Your task to perform on an android device: Open maps Image 0: 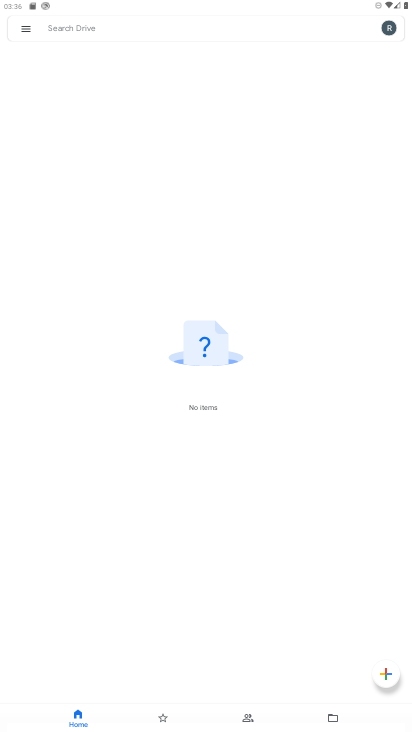
Step 0: press home button
Your task to perform on an android device: Open maps Image 1: 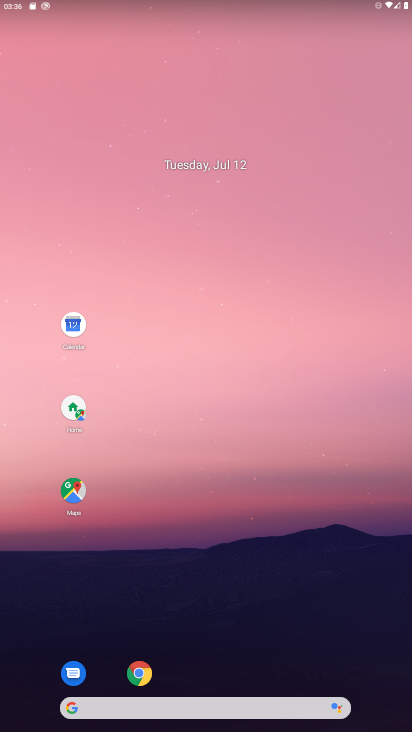
Step 1: click (70, 486)
Your task to perform on an android device: Open maps Image 2: 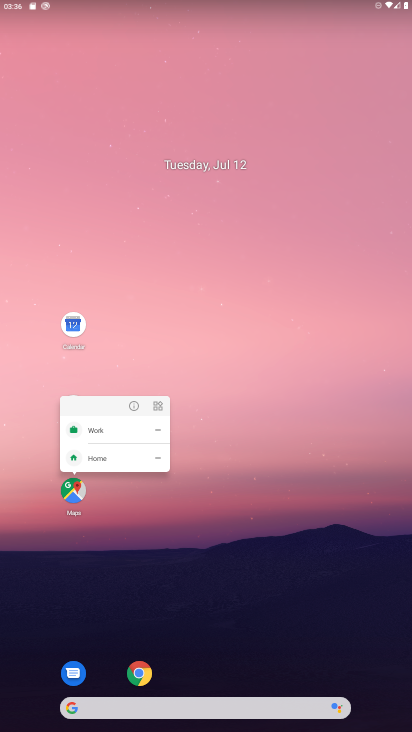
Step 2: click (77, 491)
Your task to perform on an android device: Open maps Image 3: 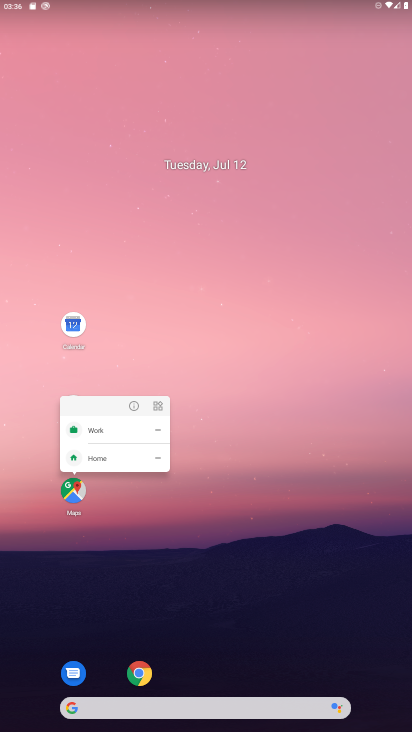
Step 3: click (76, 488)
Your task to perform on an android device: Open maps Image 4: 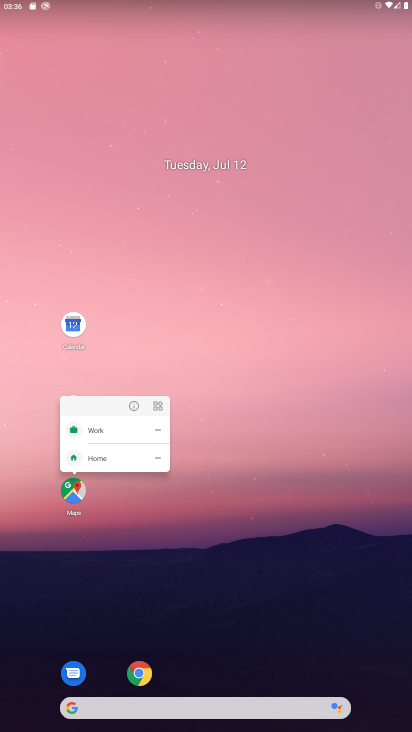
Step 4: drag from (213, 605) to (217, 166)
Your task to perform on an android device: Open maps Image 5: 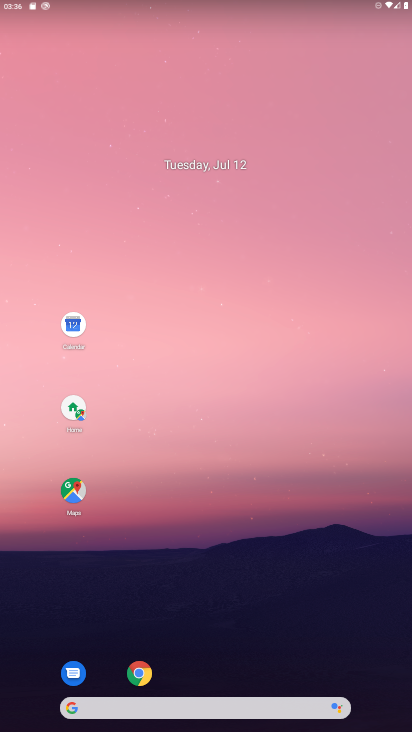
Step 5: drag from (172, 662) to (164, 149)
Your task to perform on an android device: Open maps Image 6: 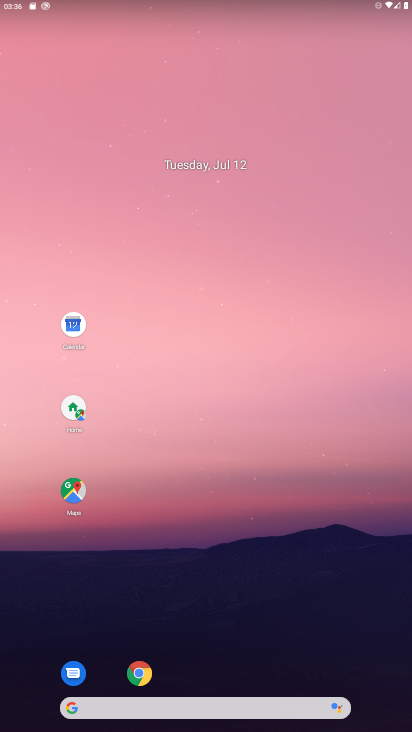
Step 6: click (76, 491)
Your task to perform on an android device: Open maps Image 7: 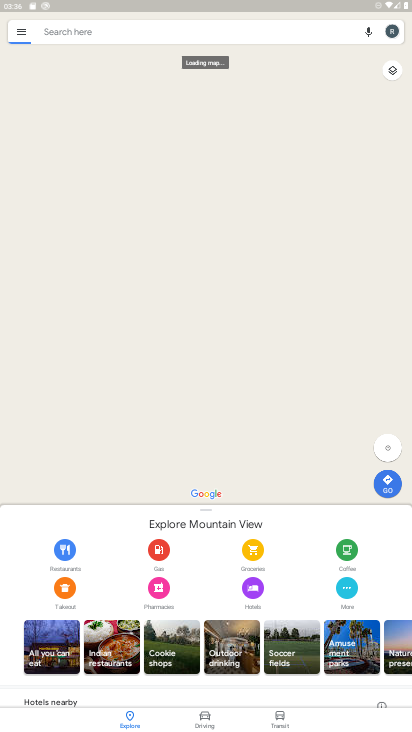
Step 7: task complete